Your task to perform on an android device: What is the news today? Image 0: 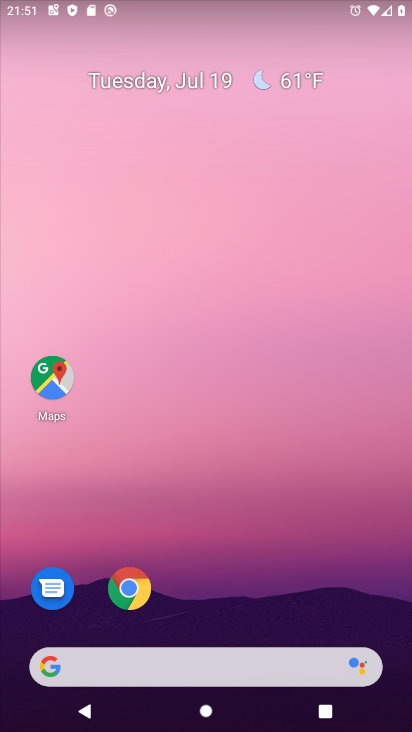
Step 0: drag from (6, 288) to (397, 323)
Your task to perform on an android device: What is the news today? Image 1: 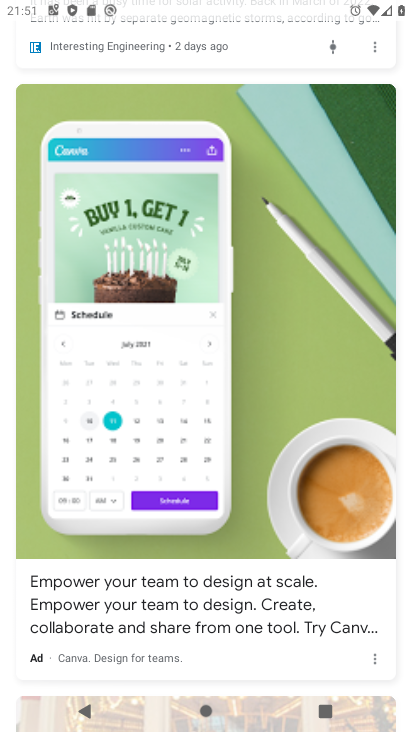
Step 1: task complete